Your task to perform on an android device: turn on improve location accuracy Image 0: 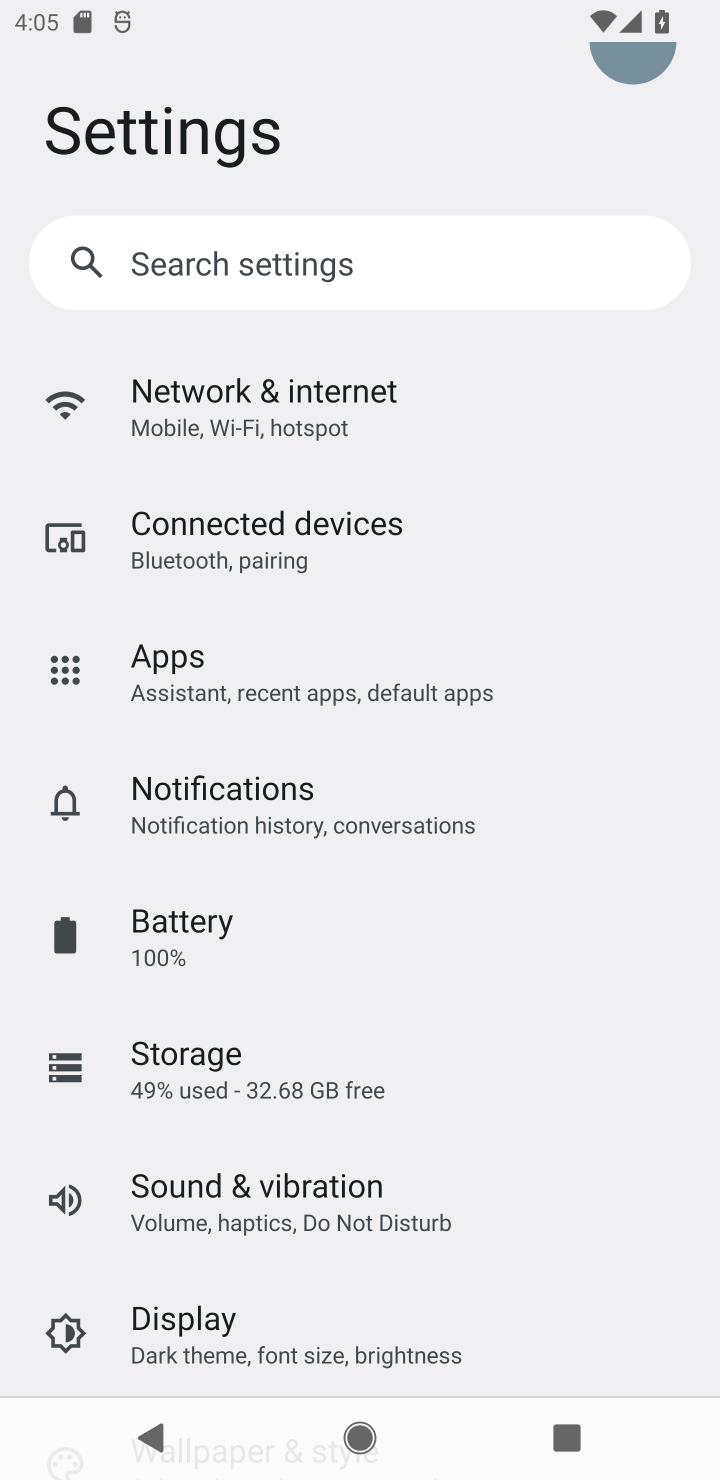
Step 0: task complete